Your task to perform on an android device: Set the phone to "Do not disturb". Image 0: 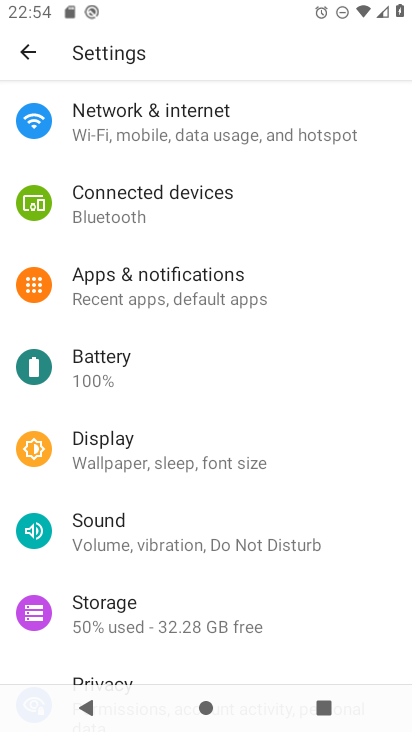
Step 0: press home button
Your task to perform on an android device: Set the phone to "Do not disturb". Image 1: 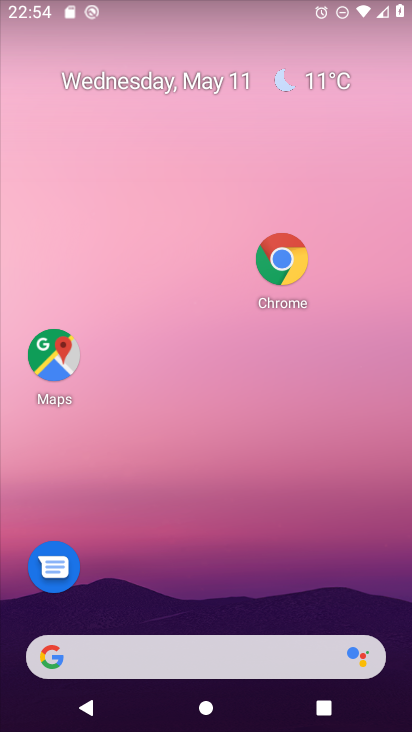
Step 1: drag from (144, 635) to (263, 116)
Your task to perform on an android device: Set the phone to "Do not disturb". Image 2: 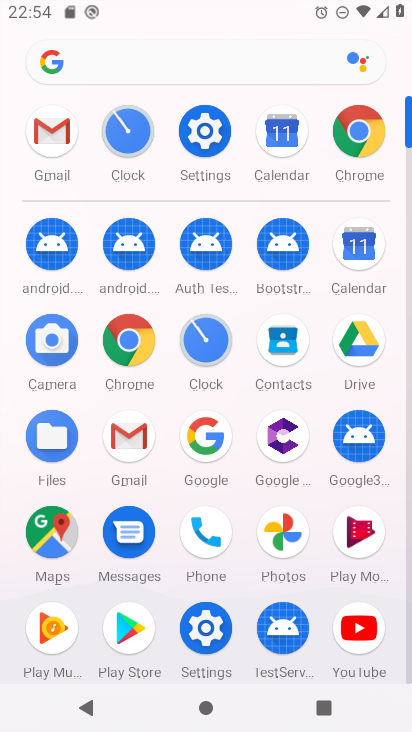
Step 2: click (201, 140)
Your task to perform on an android device: Set the phone to "Do not disturb". Image 3: 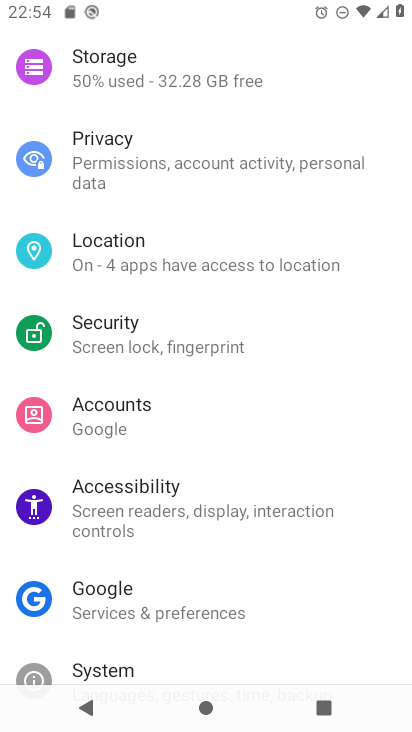
Step 3: drag from (285, 208) to (248, 611)
Your task to perform on an android device: Set the phone to "Do not disturb". Image 4: 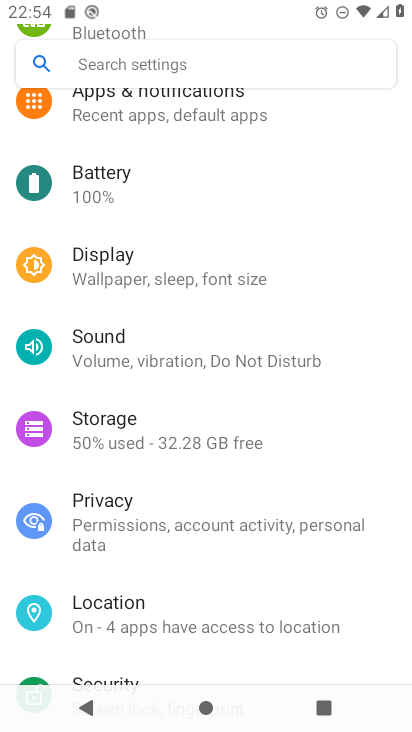
Step 4: click (132, 350)
Your task to perform on an android device: Set the phone to "Do not disturb". Image 5: 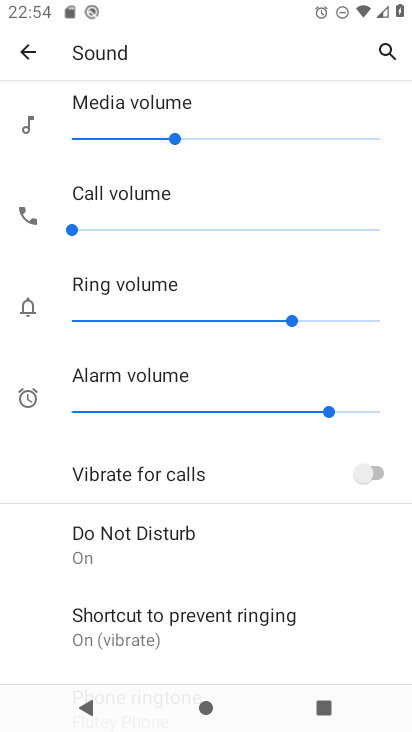
Step 5: click (142, 533)
Your task to perform on an android device: Set the phone to "Do not disturb". Image 6: 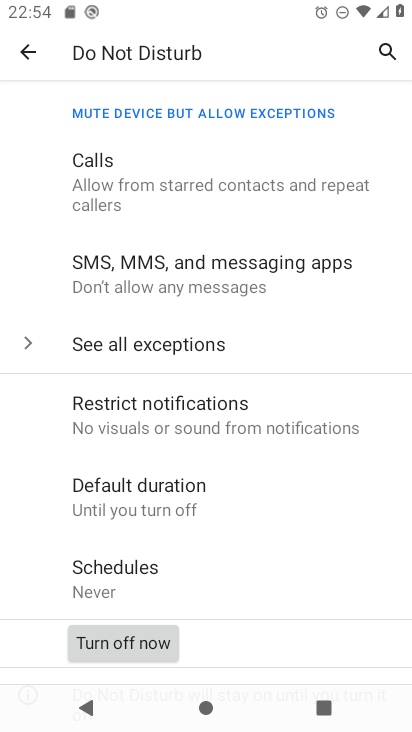
Step 6: task complete